Your task to perform on an android device: Do I have any events today? Image 0: 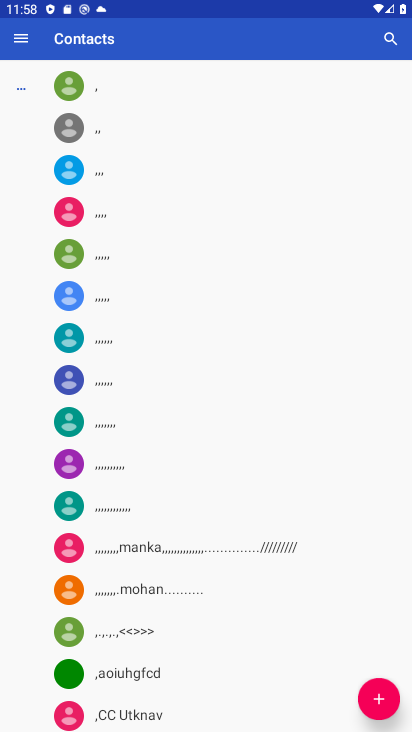
Step 0: press home button
Your task to perform on an android device: Do I have any events today? Image 1: 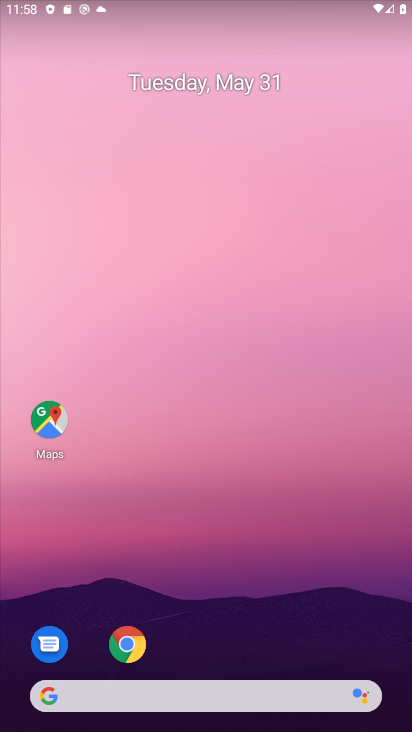
Step 1: drag from (364, 623) to (313, 176)
Your task to perform on an android device: Do I have any events today? Image 2: 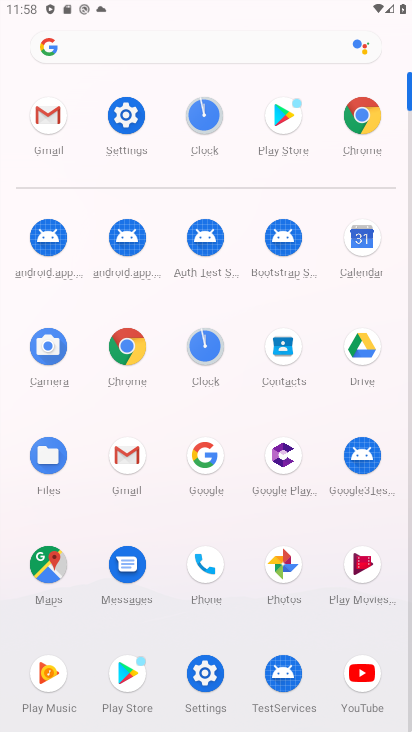
Step 2: click (125, 357)
Your task to perform on an android device: Do I have any events today? Image 3: 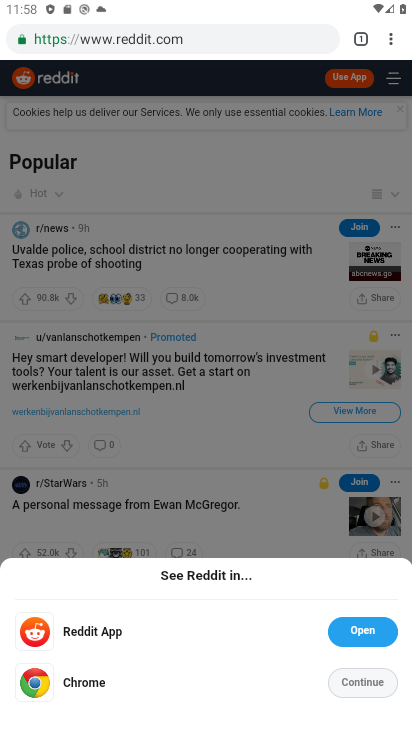
Step 3: click (176, 35)
Your task to perform on an android device: Do I have any events today? Image 4: 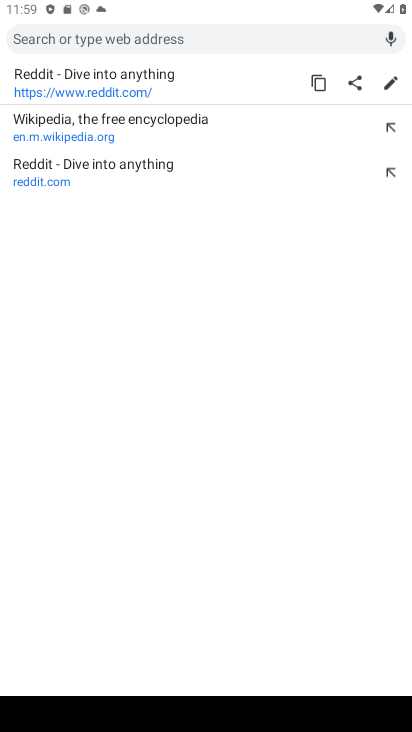
Step 4: type "do i have any events today"
Your task to perform on an android device: Do I have any events today? Image 5: 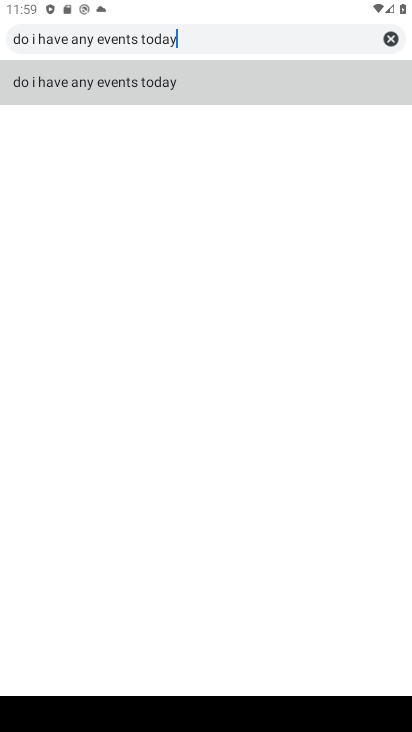
Step 5: click (144, 83)
Your task to perform on an android device: Do I have any events today? Image 6: 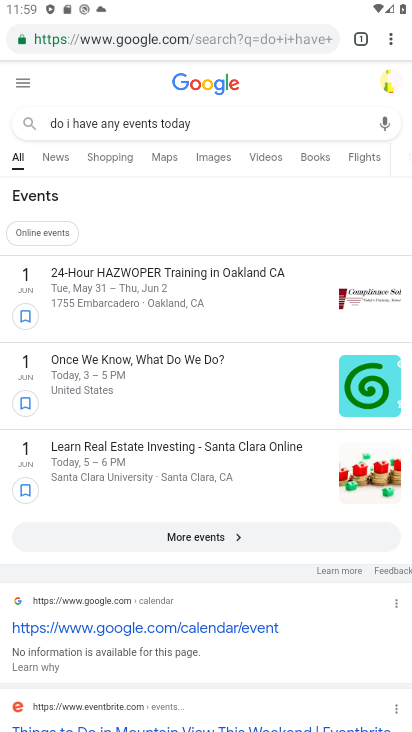
Step 6: task complete